Your task to perform on an android device: Show me recent news Image 0: 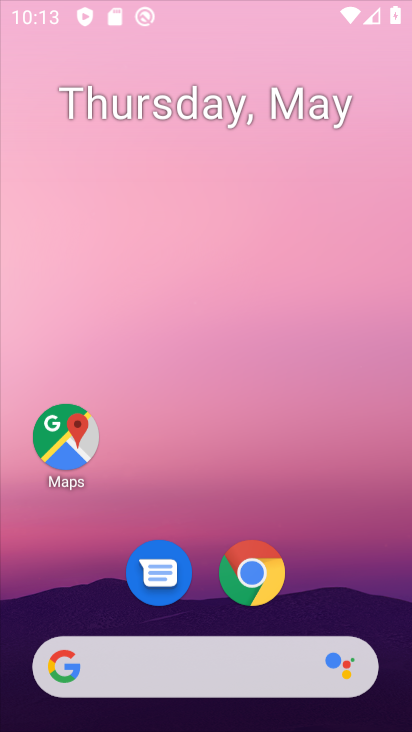
Step 0: drag from (351, 520) to (366, 157)
Your task to perform on an android device: Show me recent news Image 1: 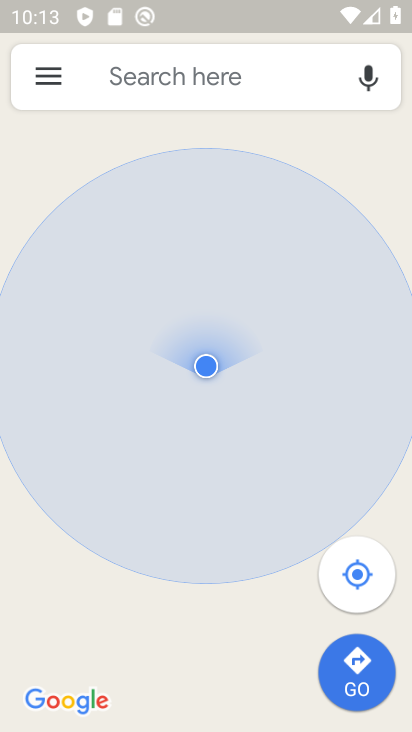
Step 1: press home button
Your task to perform on an android device: Show me recent news Image 2: 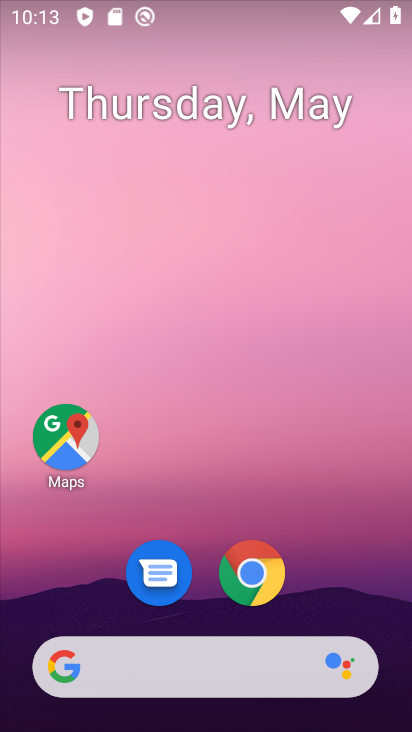
Step 2: drag from (354, 530) to (356, 172)
Your task to perform on an android device: Show me recent news Image 3: 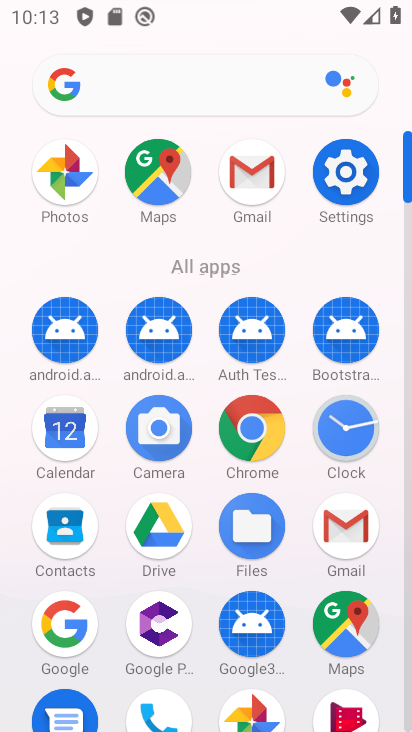
Step 3: click (259, 446)
Your task to perform on an android device: Show me recent news Image 4: 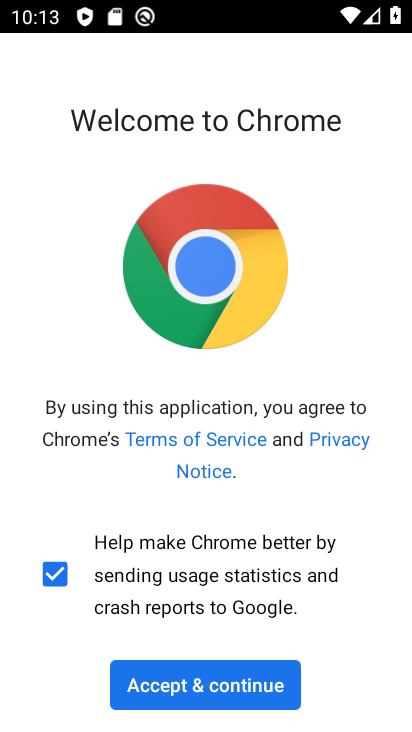
Step 4: click (143, 696)
Your task to perform on an android device: Show me recent news Image 5: 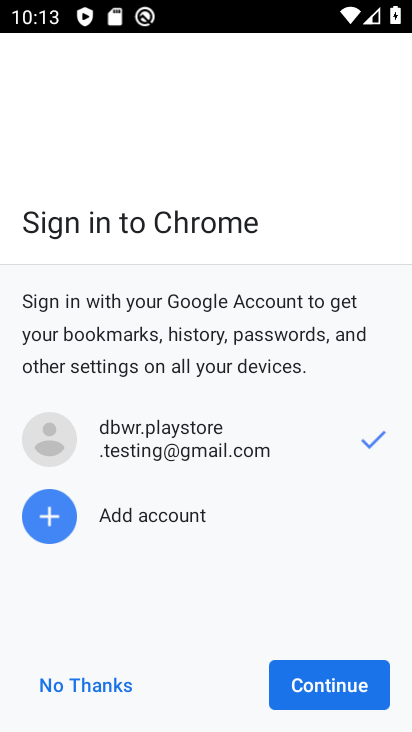
Step 5: click (288, 693)
Your task to perform on an android device: Show me recent news Image 6: 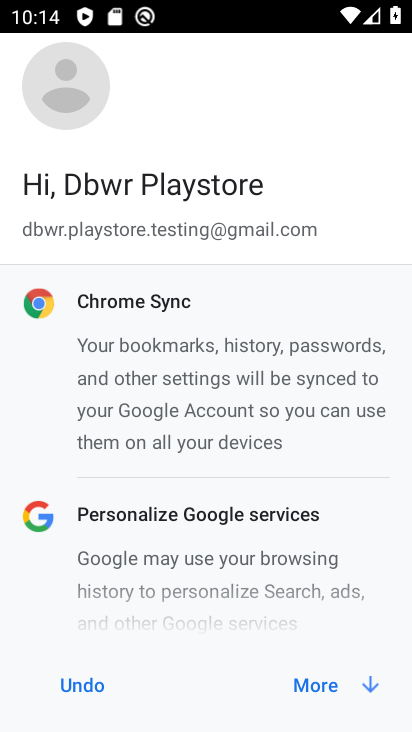
Step 6: click (320, 687)
Your task to perform on an android device: Show me recent news Image 7: 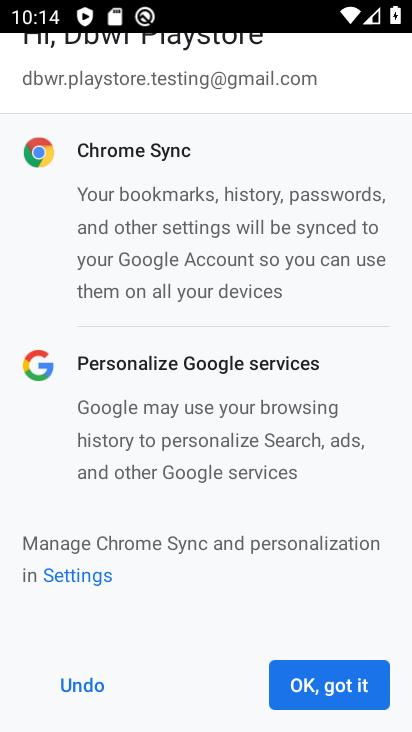
Step 7: click (320, 687)
Your task to perform on an android device: Show me recent news Image 8: 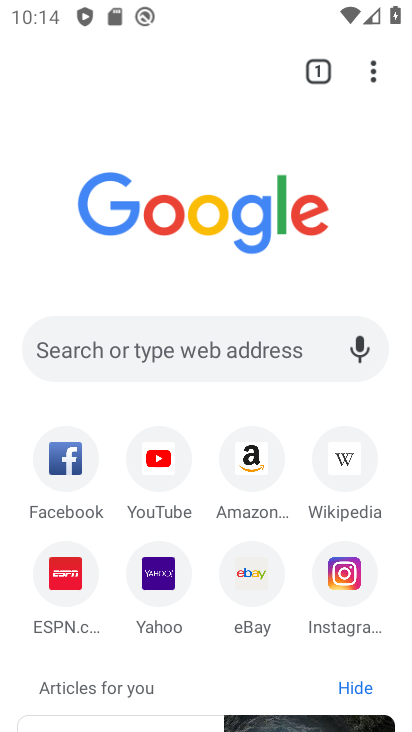
Step 8: click (256, 366)
Your task to perform on an android device: Show me recent news Image 9: 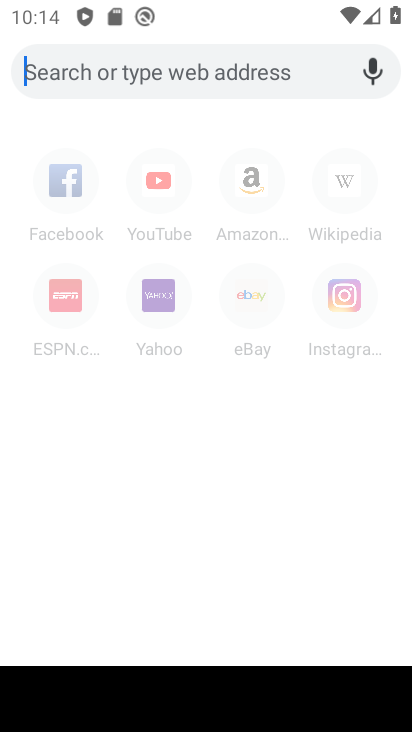
Step 9: type "recent news"
Your task to perform on an android device: Show me recent news Image 10: 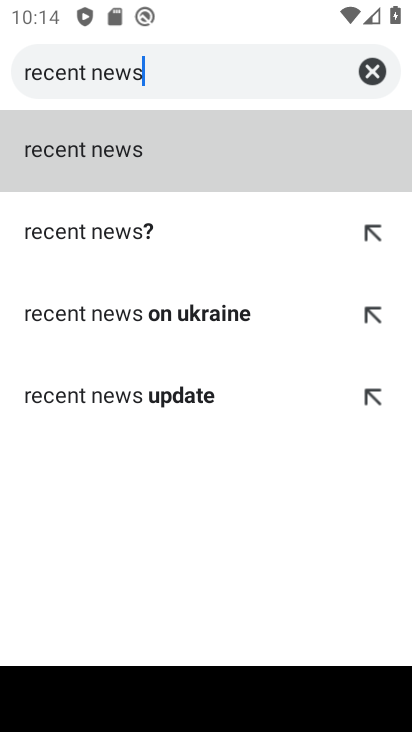
Step 10: click (119, 163)
Your task to perform on an android device: Show me recent news Image 11: 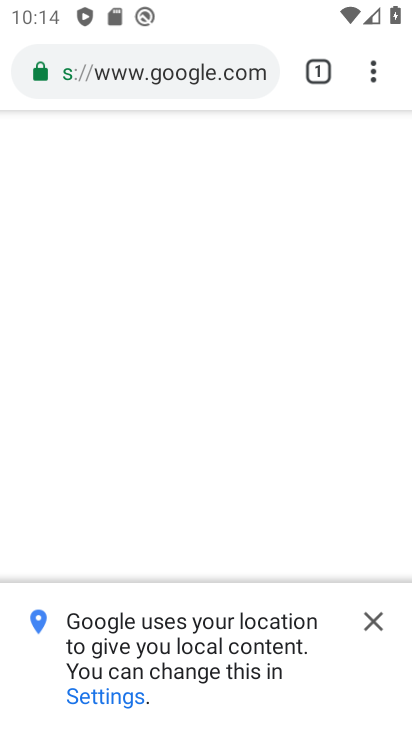
Step 11: click (365, 626)
Your task to perform on an android device: Show me recent news Image 12: 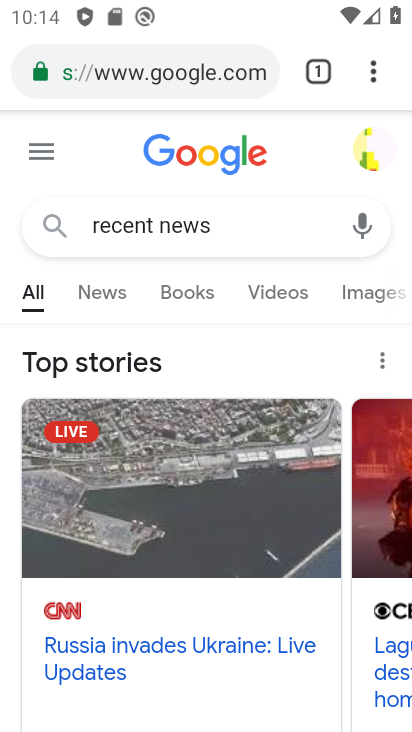
Step 12: drag from (211, 660) to (262, 279)
Your task to perform on an android device: Show me recent news Image 13: 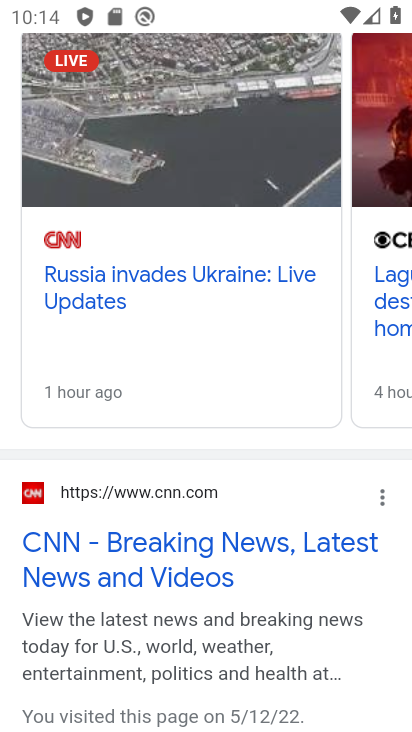
Step 13: click (191, 549)
Your task to perform on an android device: Show me recent news Image 14: 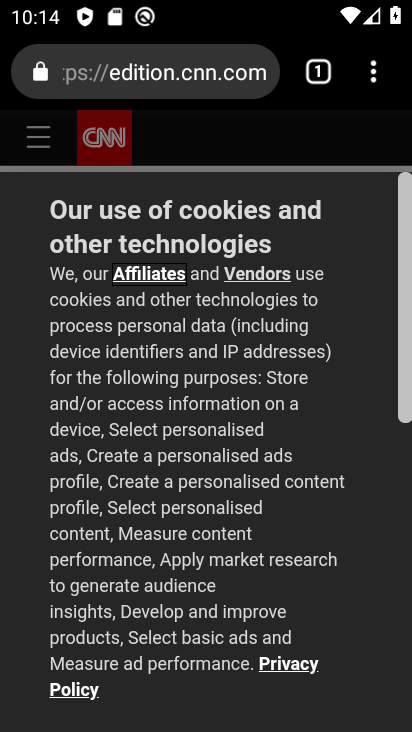
Step 14: drag from (203, 704) to (234, 407)
Your task to perform on an android device: Show me recent news Image 15: 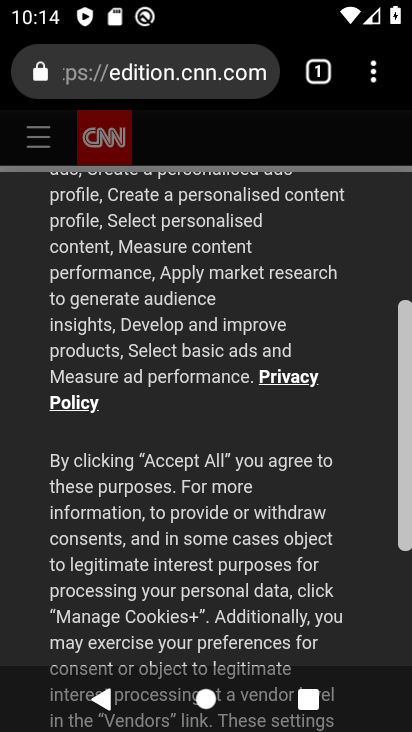
Step 15: drag from (160, 612) to (212, 293)
Your task to perform on an android device: Show me recent news Image 16: 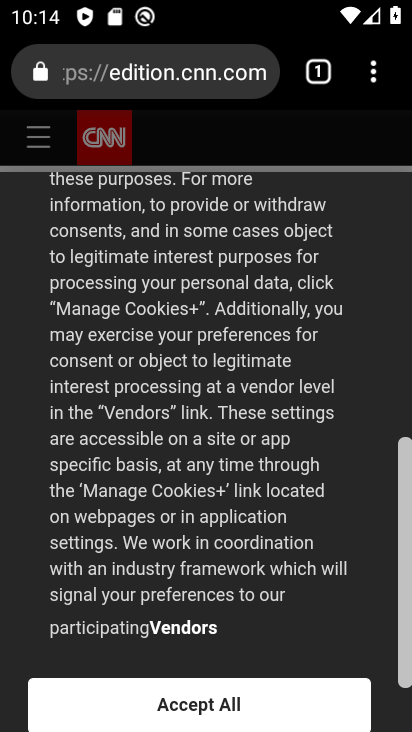
Step 16: drag from (196, 612) to (234, 376)
Your task to perform on an android device: Show me recent news Image 17: 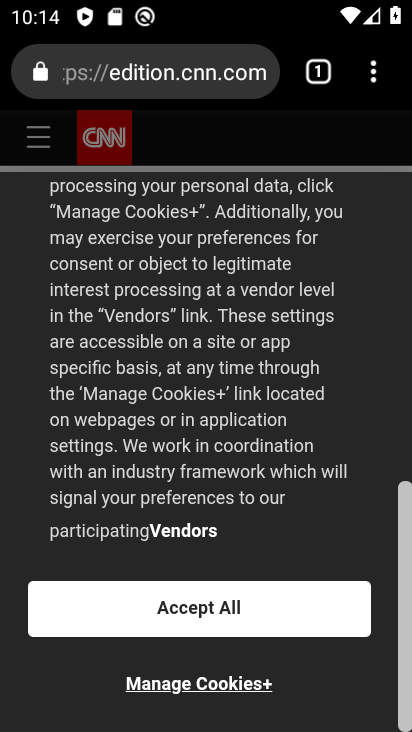
Step 17: click (192, 623)
Your task to perform on an android device: Show me recent news Image 18: 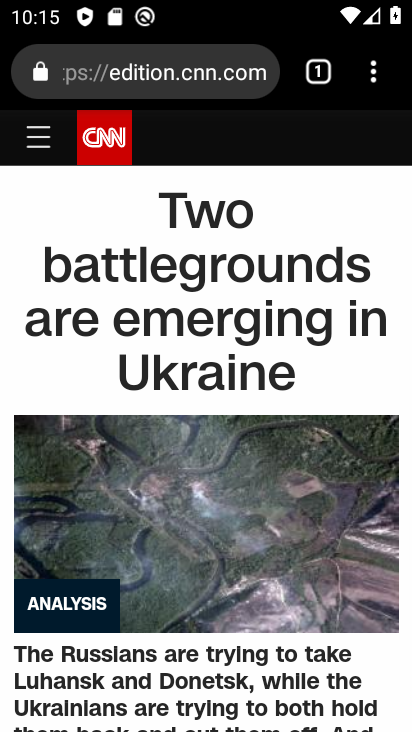
Step 18: task complete